Your task to perform on an android device: turn on wifi Image 0: 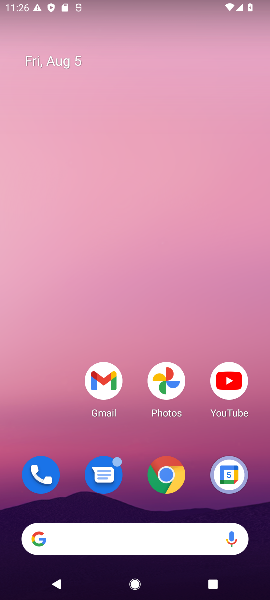
Step 0: drag from (142, 503) to (164, 3)
Your task to perform on an android device: turn on wifi Image 1: 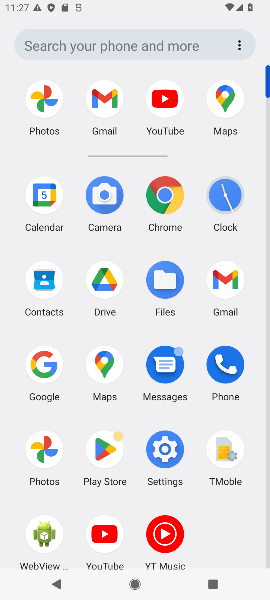
Step 1: click (165, 451)
Your task to perform on an android device: turn on wifi Image 2: 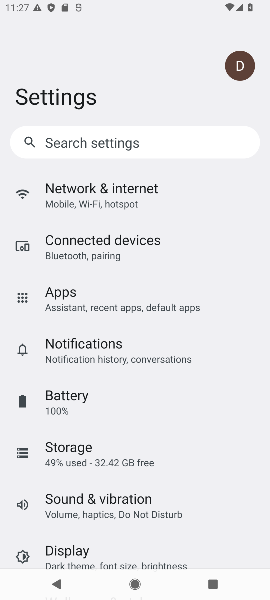
Step 2: click (113, 201)
Your task to perform on an android device: turn on wifi Image 3: 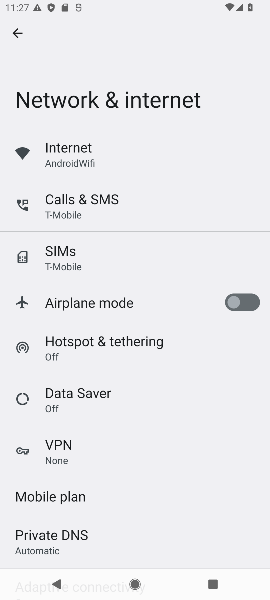
Step 3: click (80, 150)
Your task to perform on an android device: turn on wifi Image 4: 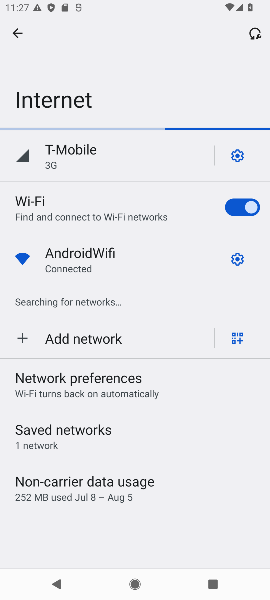
Step 4: task complete